Your task to perform on an android device: toggle sleep mode Image 0: 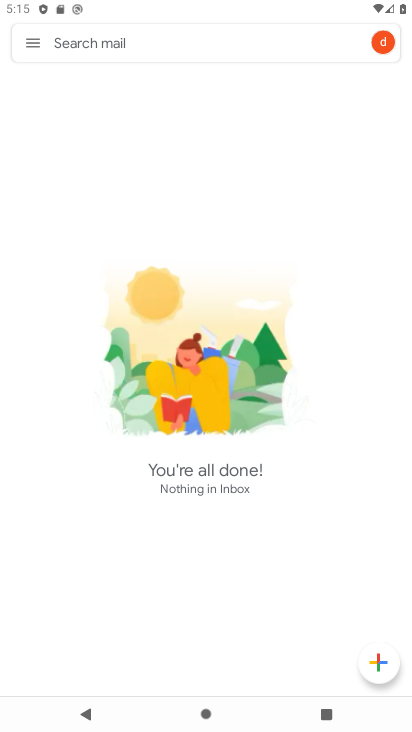
Step 0: press home button
Your task to perform on an android device: toggle sleep mode Image 1: 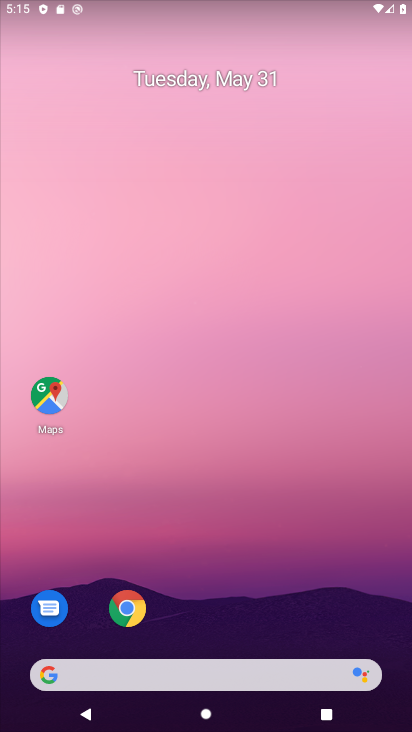
Step 1: drag from (283, 547) to (215, 157)
Your task to perform on an android device: toggle sleep mode Image 2: 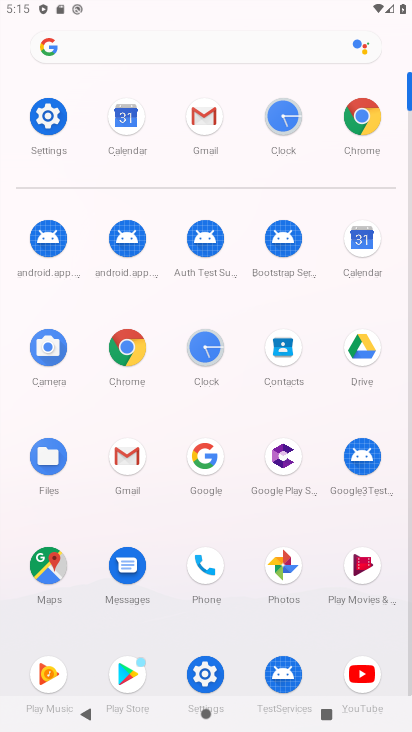
Step 2: click (49, 114)
Your task to perform on an android device: toggle sleep mode Image 3: 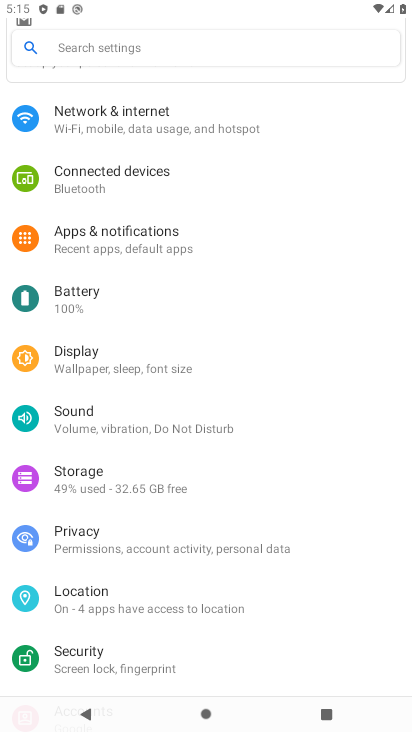
Step 3: click (140, 371)
Your task to perform on an android device: toggle sleep mode Image 4: 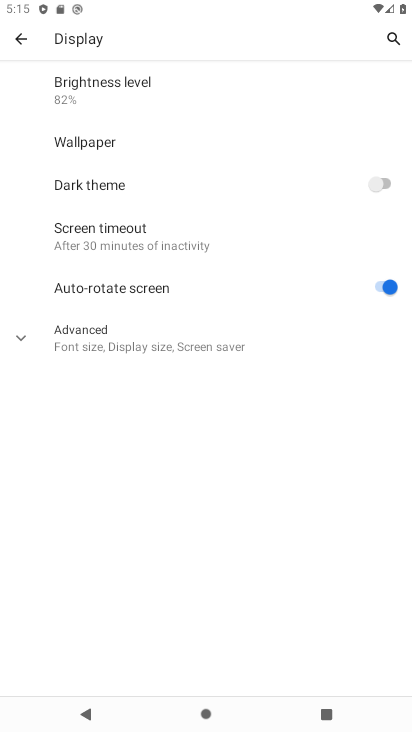
Step 4: click (152, 237)
Your task to perform on an android device: toggle sleep mode Image 5: 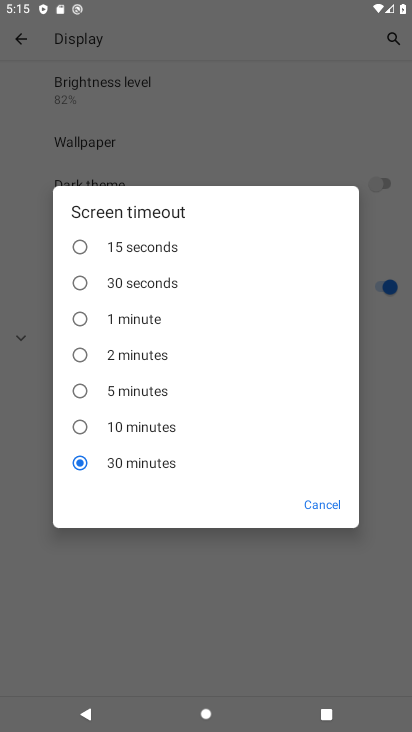
Step 5: drag from (196, 428) to (211, 292)
Your task to perform on an android device: toggle sleep mode Image 6: 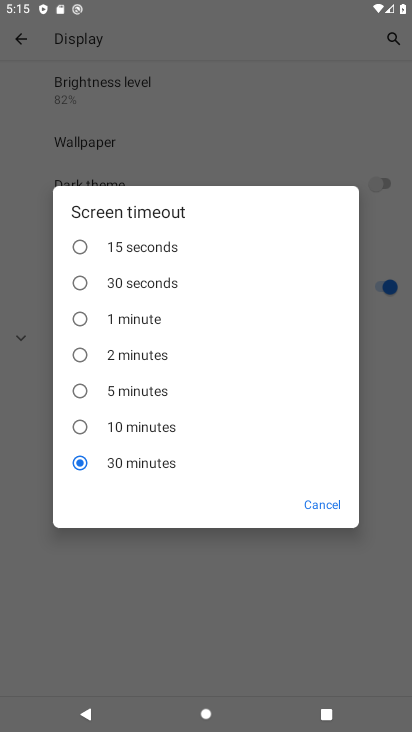
Step 6: click (312, 505)
Your task to perform on an android device: toggle sleep mode Image 7: 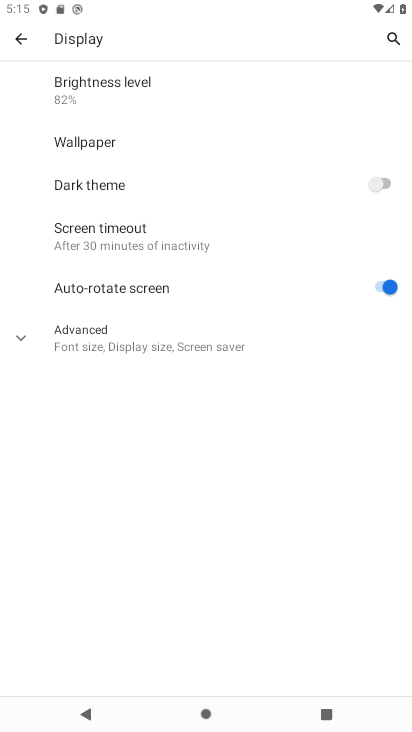
Step 7: click (135, 349)
Your task to perform on an android device: toggle sleep mode Image 8: 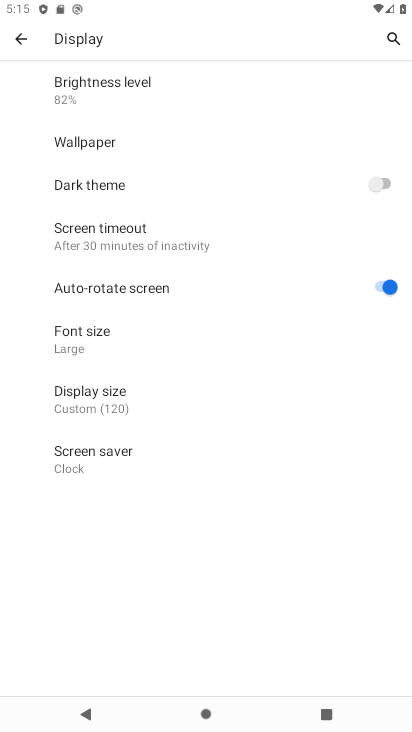
Step 8: task complete